Your task to perform on an android device: Clear all items from cart on bestbuy.com. Search for "bose soundlink" on bestbuy.com, select the first entry, and add it to the cart. Image 0: 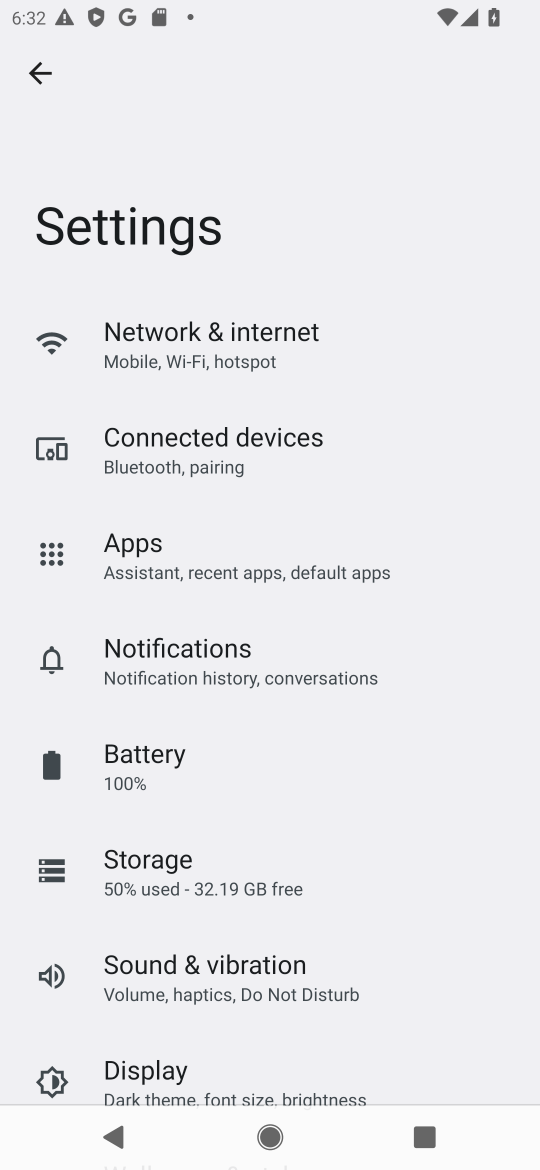
Step 0: press home button
Your task to perform on an android device: Clear all items from cart on bestbuy.com. Search for "bose soundlink" on bestbuy.com, select the first entry, and add it to the cart. Image 1: 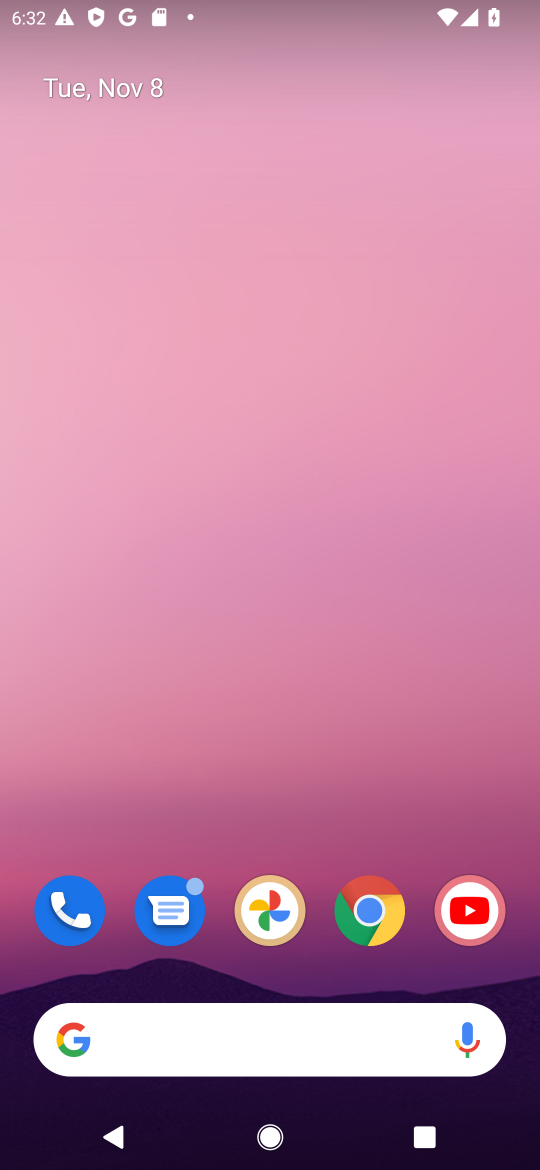
Step 1: click (367, 910)
Your task to perform on an android device: Clear all items from cart on bestbuy.com. Search for "bose soundlink" on bestbuy.com, select the first entry, and add it to the cart. Image 2: 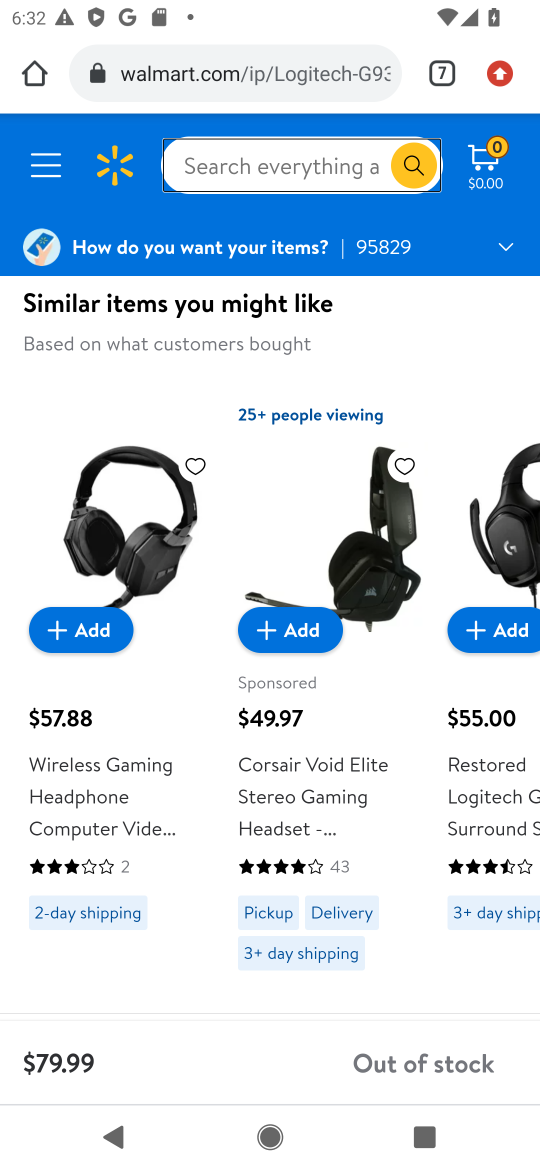
Step 2: click (438, 77)
Your task to perform on an android device: Clear all items from cart on bestbuy.com. Search for "bose soundlink" on bestbuy.com, select the first entry, and add it to the cart. Image 3: 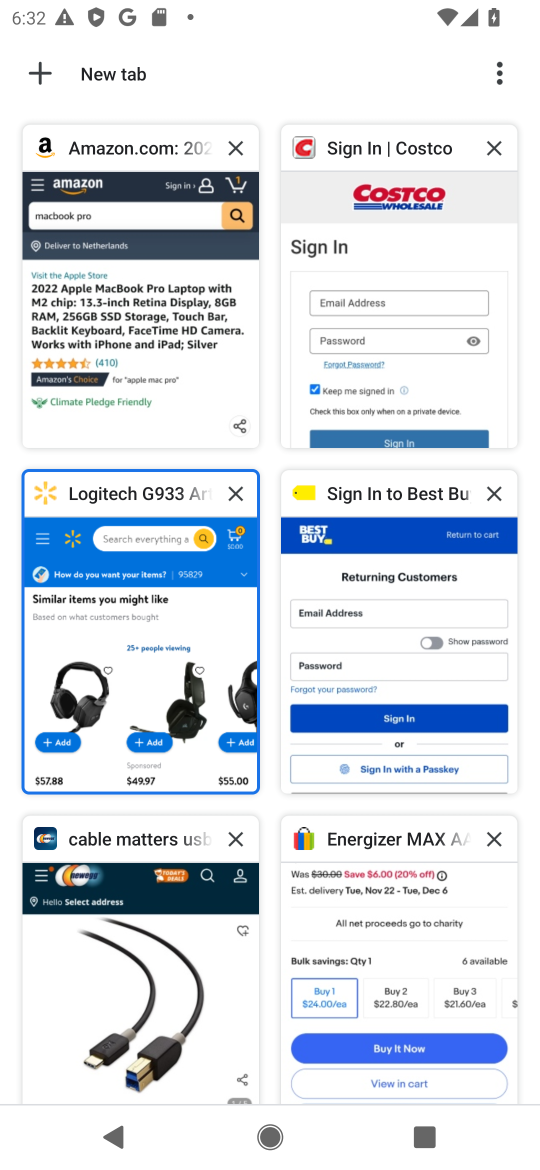
Step 3: click (374, 617)
Your task to perform on an android device: Clear all items from cart on bestbuy.com. Search for "bose soundlink" on bestbuy.com, select the first entry, and add it to the cart. Image 4: 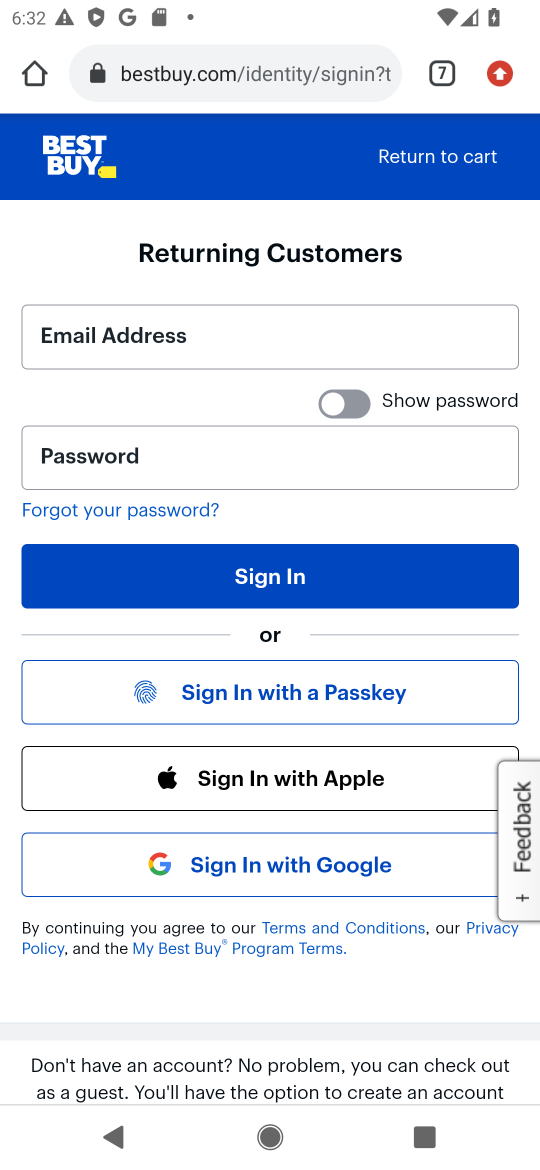
Step 4: click (398, 155)
Your task to perform on an android device: Clear all items from cart on bestbuy.com. Search for "bose soundlink" on bestbuy.com, select the first entry, and add it to the cart. Image 5: 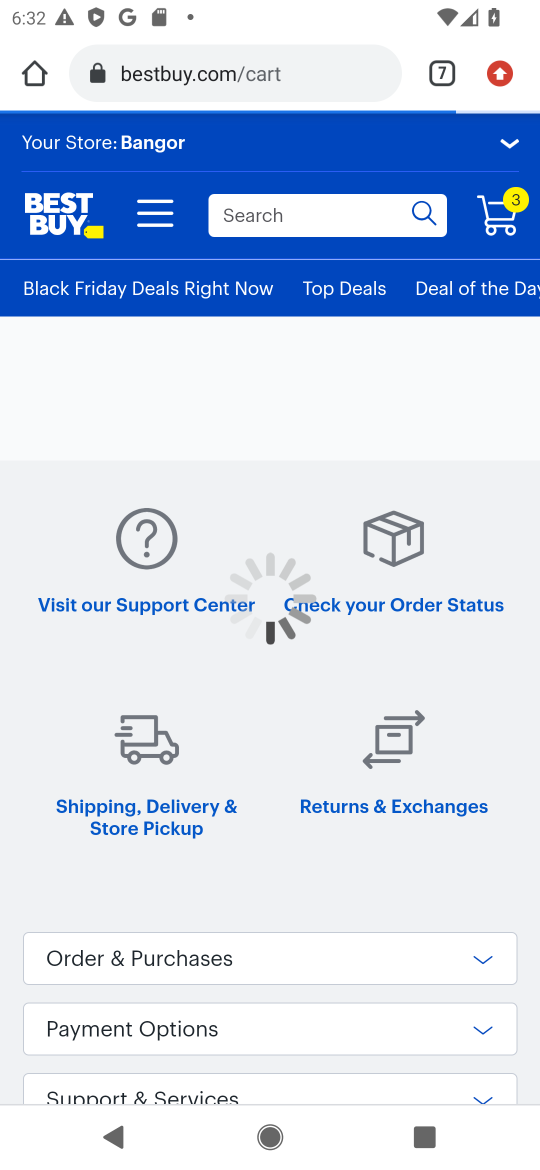
Step 5: click (256, 214)
Your task to perform on an android device: Clear all items from cart on bestbuy.com. Search for "bose soundlink" on bestbuy.com, select the first entry, and add it to the cart. Image 6: 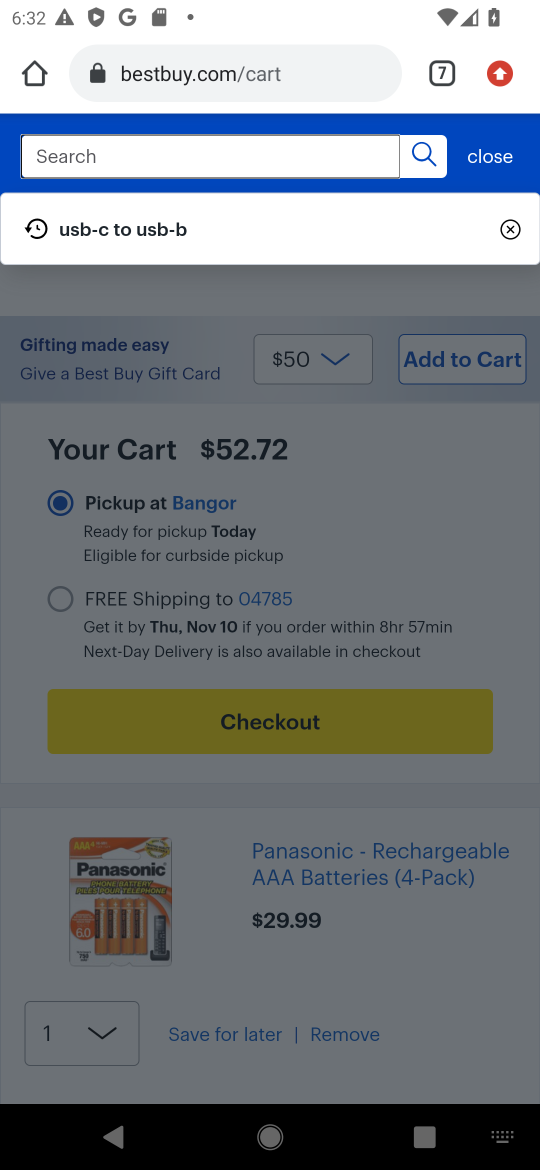
Step 6: type "bose soundlink"
Your task to perform on an android device: Clear all items from cart on bestbuy.com. Search for "bose soundlink" on bestbuy.com, select the first entry, and add it to the cart. Image 7: 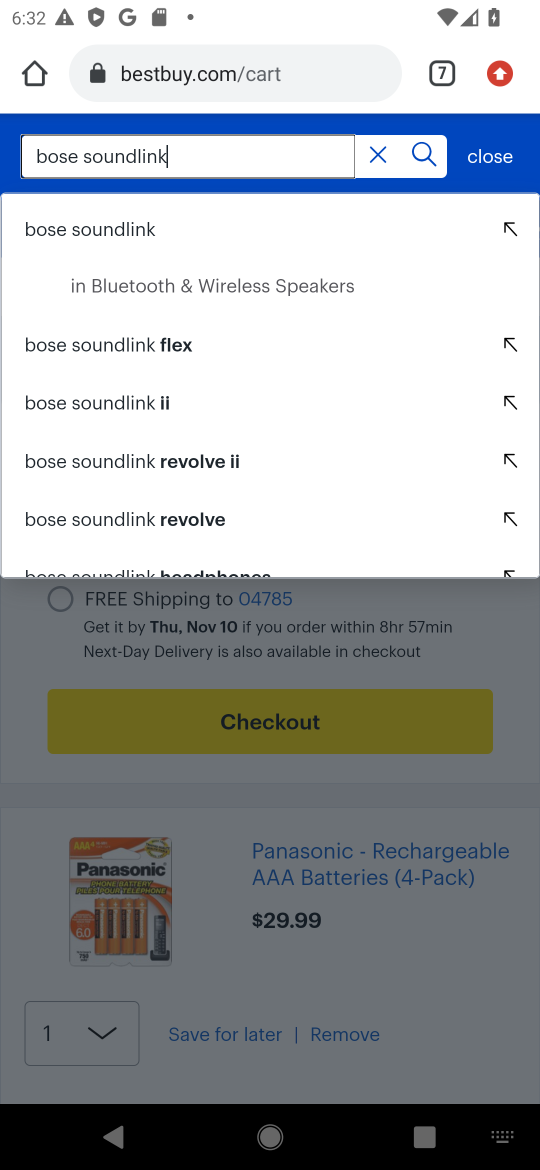
Step 7: click (109, 229)
Your task to perform on an android device: Clear all items from cart on bestbuy.com. Search for "bose soundlink" on bestbuy.com, select the first entry, and add it to the cart. Image 8: 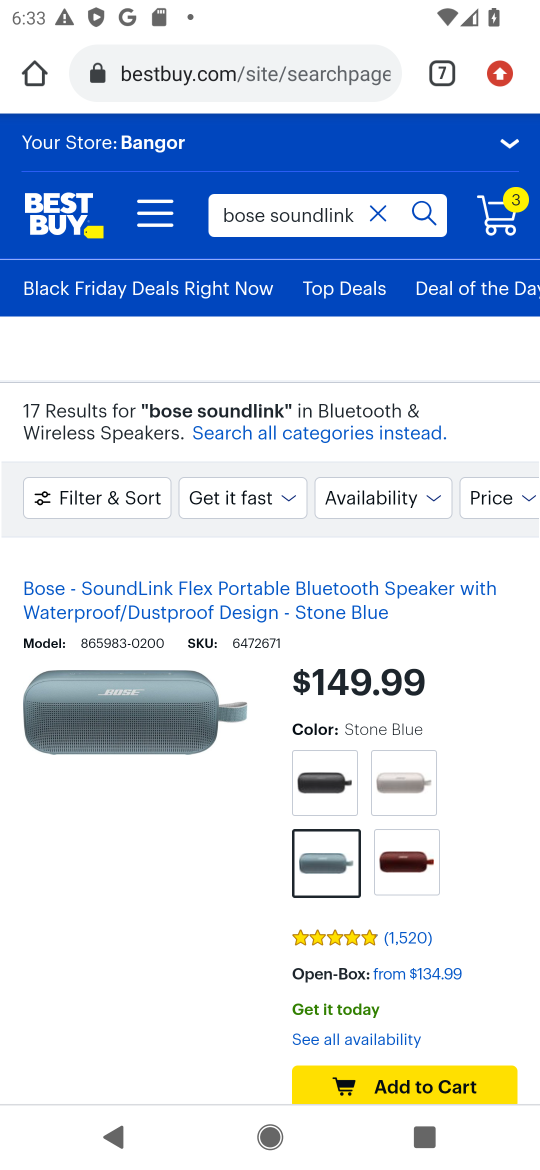
Step 8: click (431, 1086)
Your task to perform on an android device: Clear all items from cart on bestbuy.com. Search for "bose soundlink" on bestbuy.com, select the first entry, and add it to the cart. Image 9: 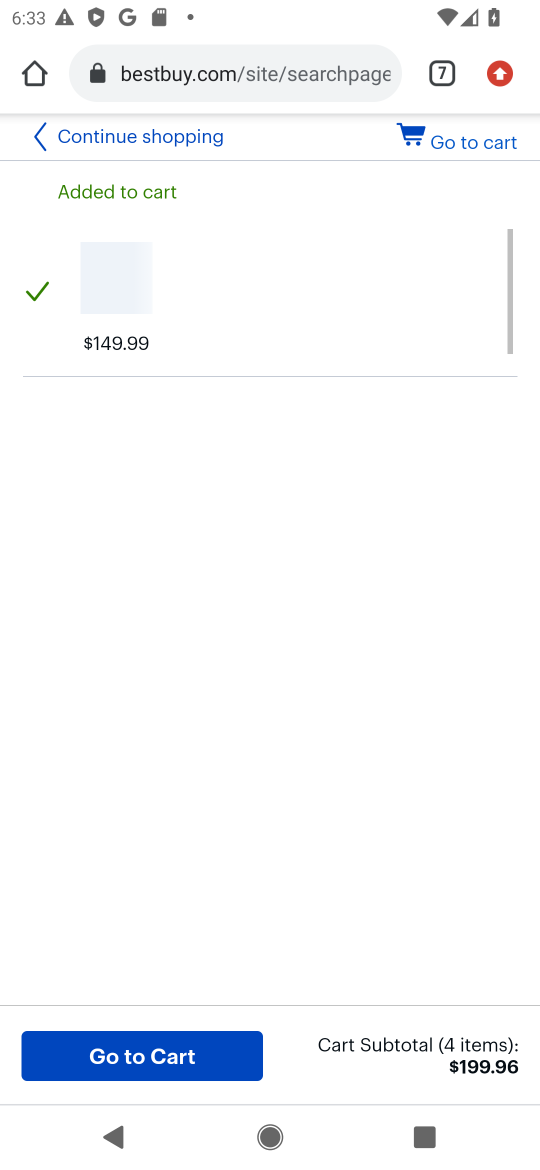
Step 9: task complete